Your task to perform on an android device: turn pop-ups off in chrome Image 0: 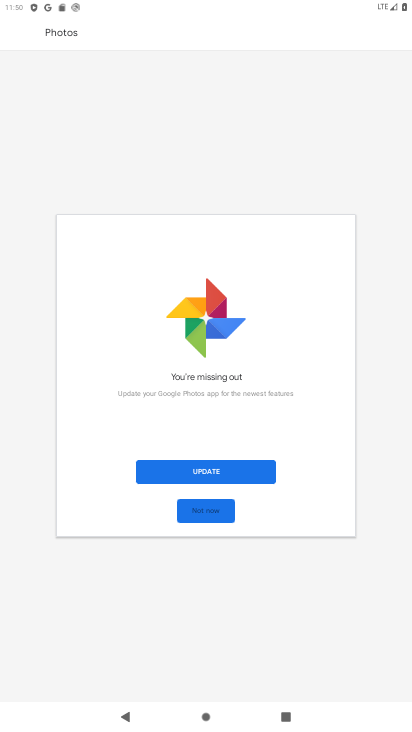
Step 0: press home button
Your task to perform on an android device: turn pop-ups off in chrome Image 1: 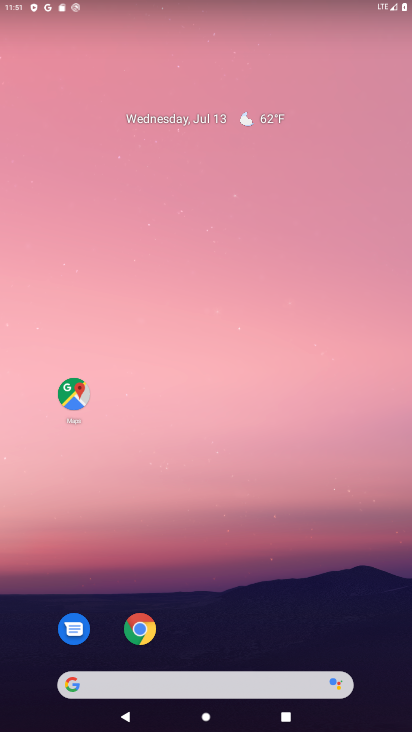
Step 1: click (146, 635)
Your task to perform on an android device: turn pop-ups off in chrome Image 2: 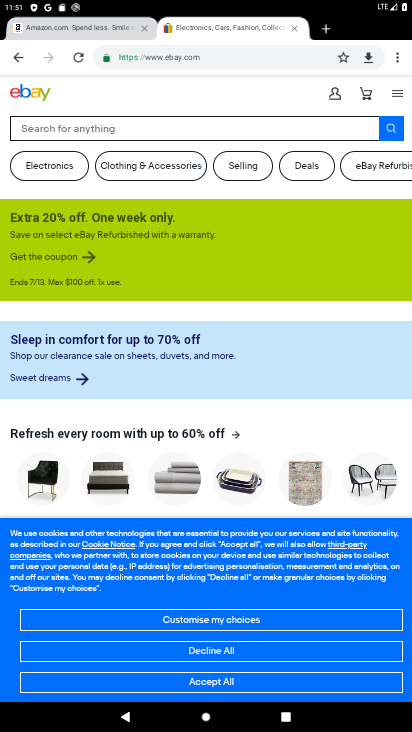
Step 2: click (404, 60)
Your task to perform on an android device: turn pop-ups off in chrome Image 3: 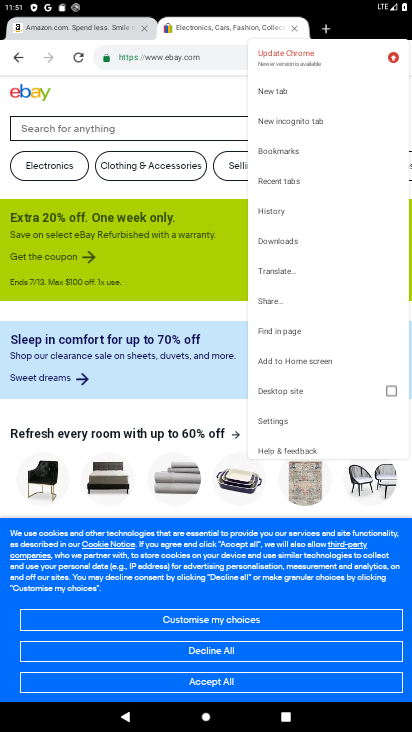
Step 3: click (282, 419)
Your task to perform on an android device: turn pop-ups off in chrome Image 4: 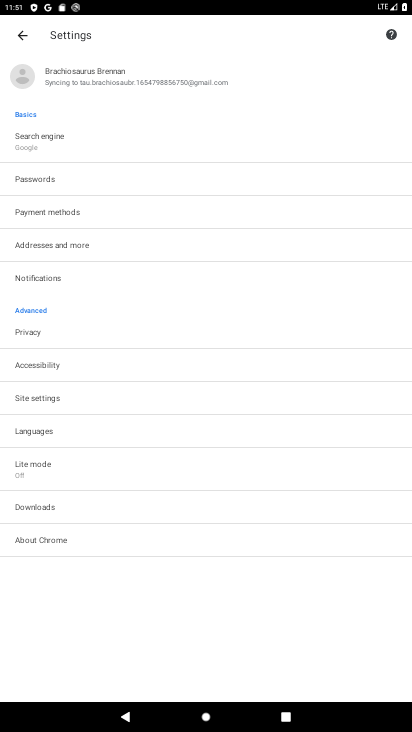
Step 4: click (161, 401)
Your task to perform on an android device: turn pop-ups off in chrome Image 5: 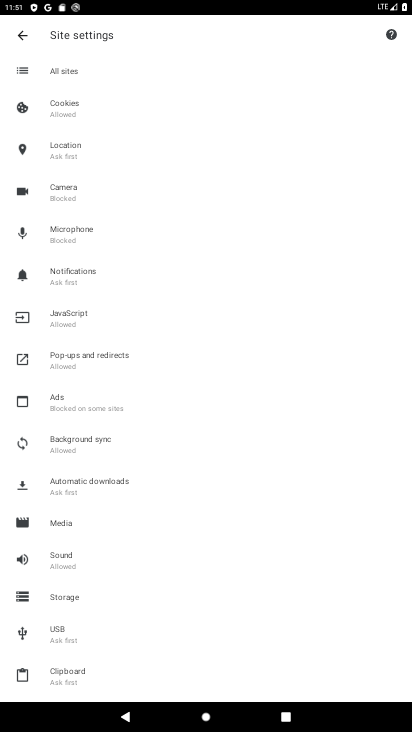
Step 5: click (120, 354)
Your task to perform on an android device: turn pop-ups off in chrome Image 6: 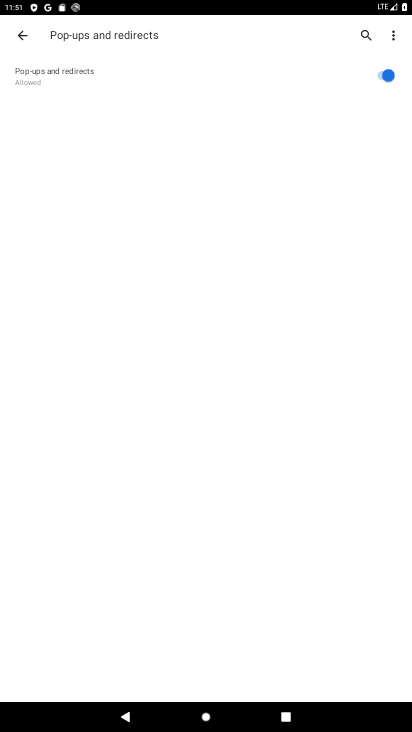
Step 6: click (380, 91)
Your task to perform on an android device: turn pop-ups off in chrome Image 7: 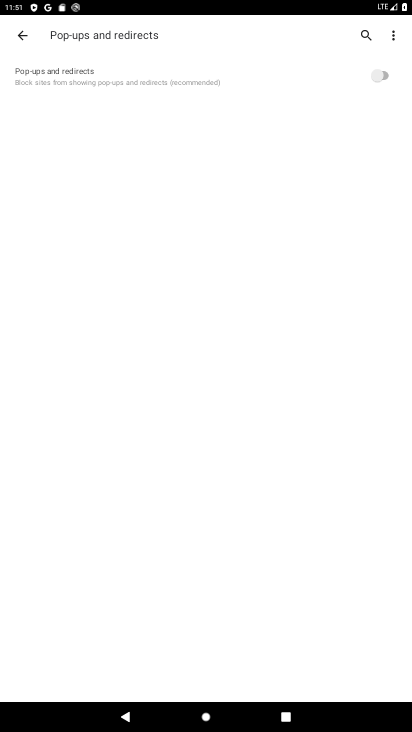
Step 7: task complete